Your task to perform on an android device: turn off priority inbox in the gmail app Image 0: 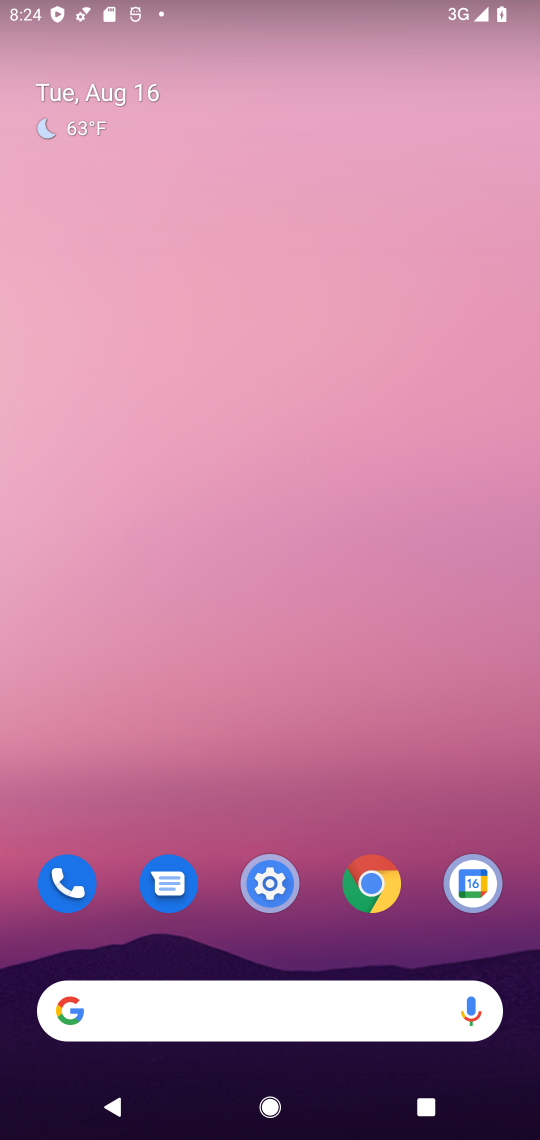
Step 0: drag from (449, 779) to (337, 322)
Your task to perform on an android device: turn off priority inbox in the gmail app Image 1: 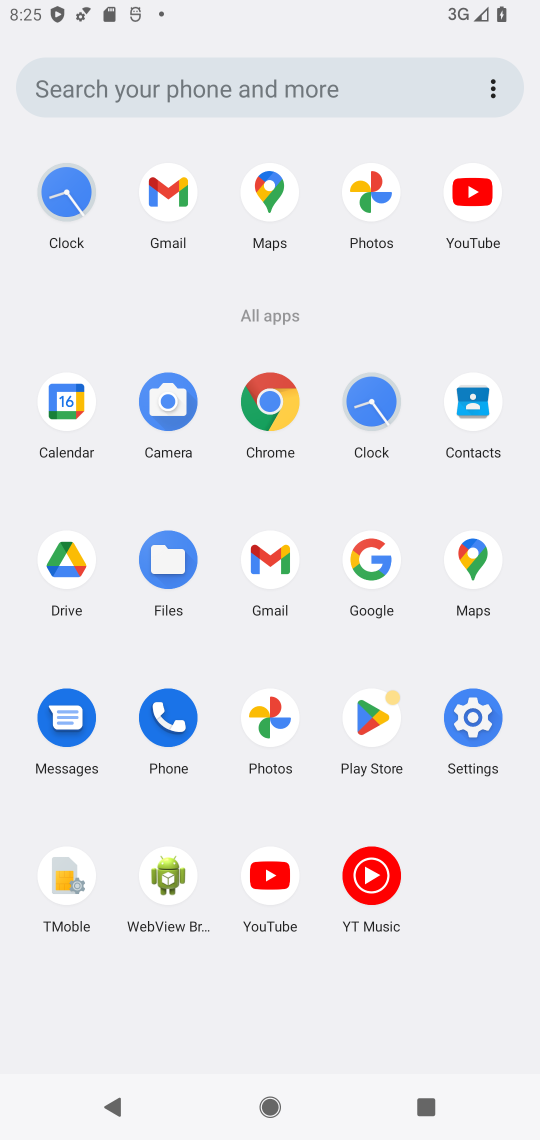
Step 1: click (269, 575)
Your task to perform on an android device: turn off priority inbox in the gmail app Image 2: 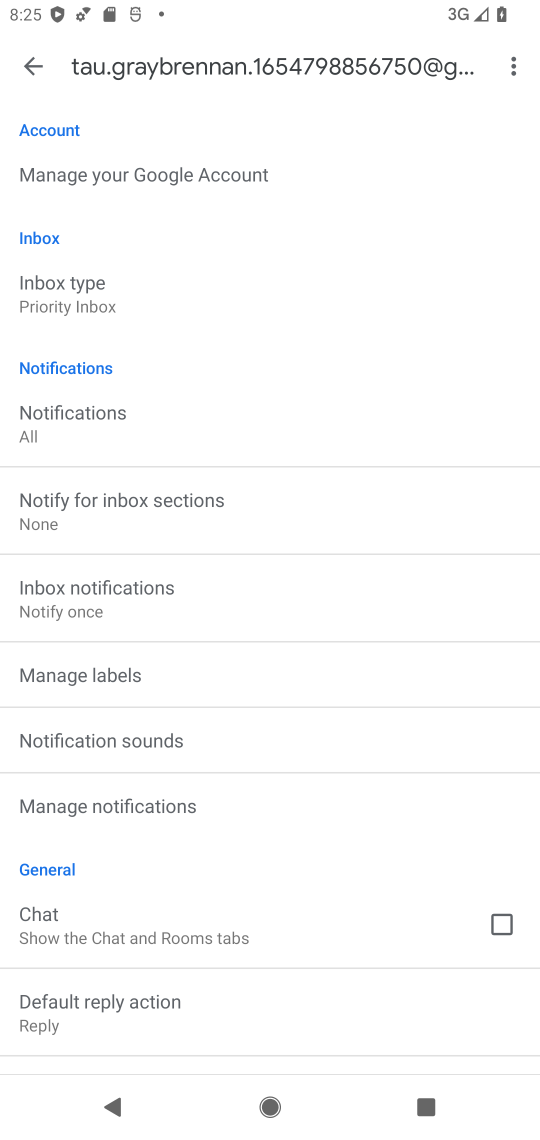
Step 2: click (170, 273)
Your task to perform on an android device: turn off priority inbox in the gmail app Image 3: 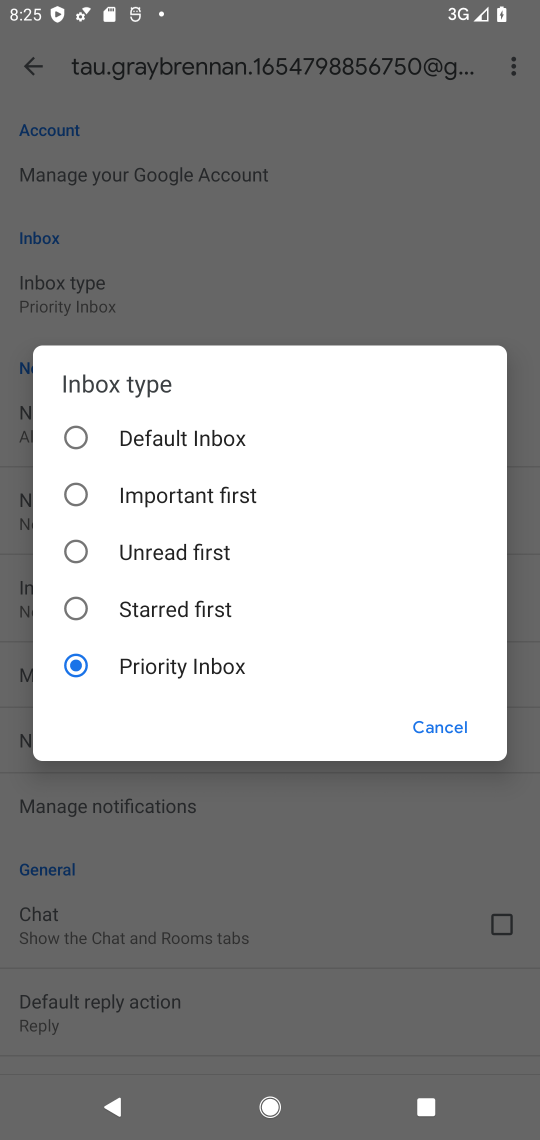
Step 3: click (144, 429)
Your task to perform on an android device: turn off priority inbox in the gmail app Image 4: 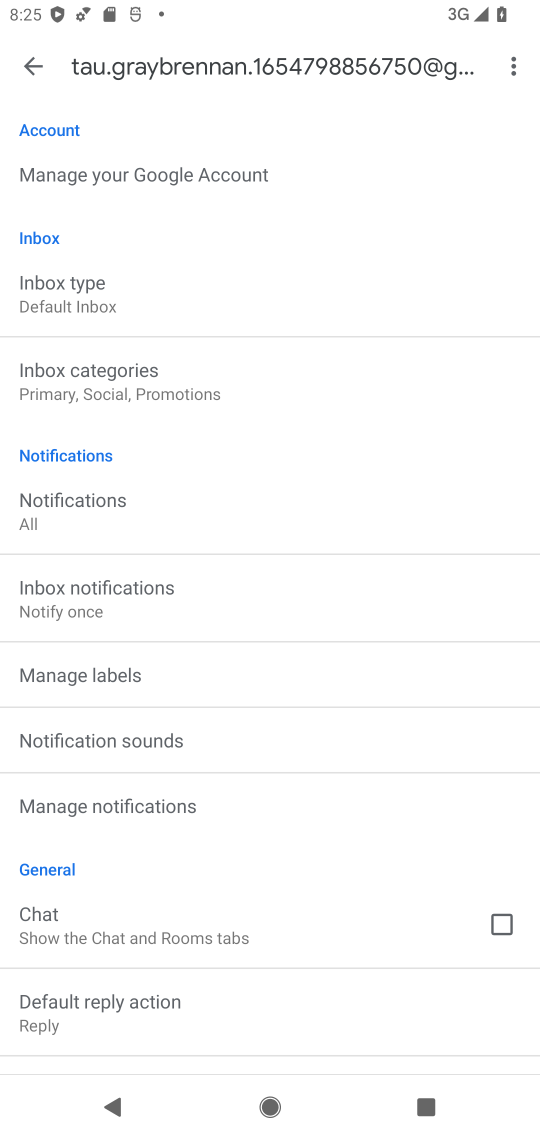
Step 4: task complete